Your task to perform on an android device: Open the calendar app, open the side menu, and click the "Day" option Image 0: 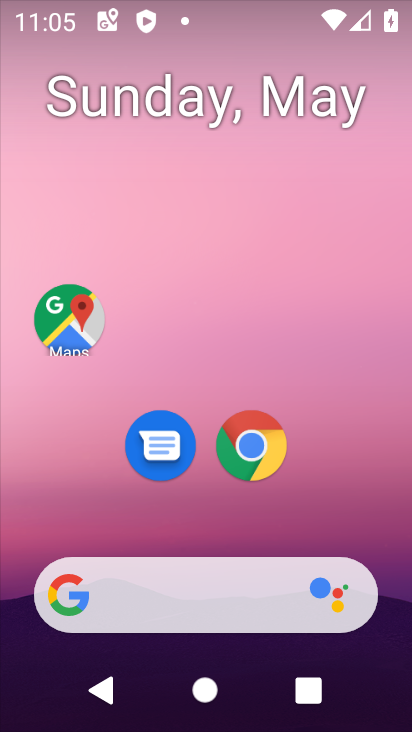
Step 0: drag from (200, 446) to (220, 90)
Your task to perform on an android device: Open the calendar app, open the side menu, and click the "Day" option Image 1: 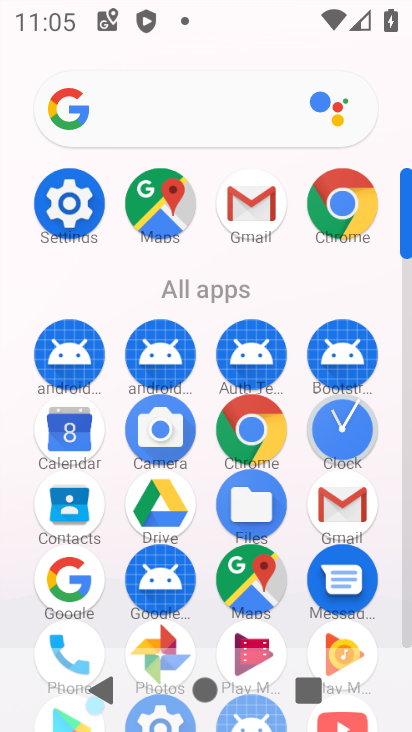
Step 1: click (73, 415)
Your task to perform on an android device: Open the calendar app, open the side menu, and click the "Day" option Image 2: 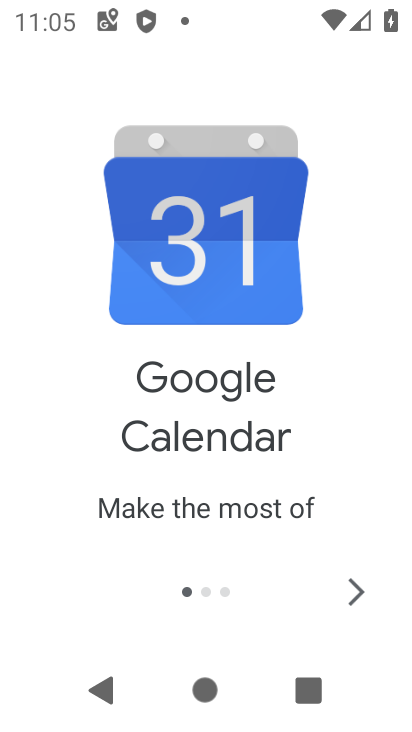
Step 2: click (358, 597)
Your task to perform on an android device: Open the calendar app, open the side menu, and click the "Day" option Image 3: 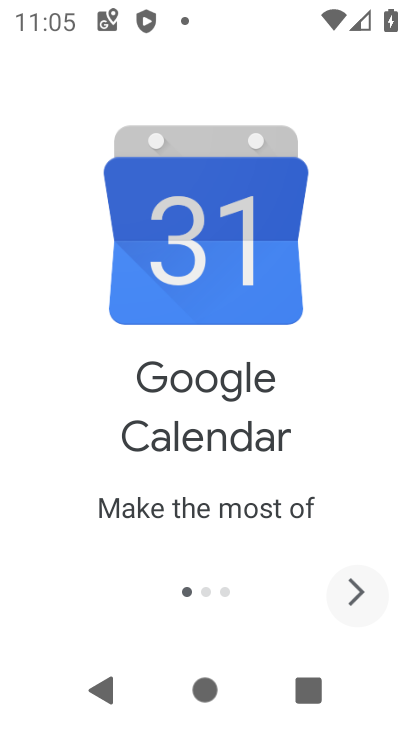
Step 3: click (358, 597)
Your task to perform on an android device: Open the calendar app, open the side menu, and click the "Day" option Image 4: 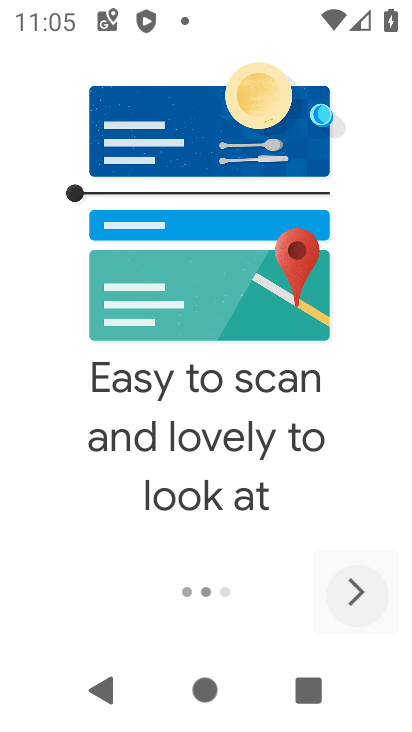
Step 4: click (358, 597)
Your task to perform on an android device: Open the calendar app, open the side menu, and click the "Day" option Image 5: 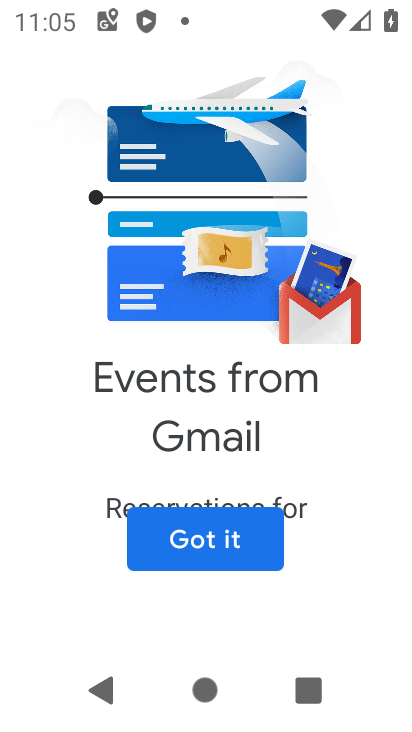
Step 5: click (227, 528)
Your task to perform on an android device: Open the calendar app, open the side menu, and click the "Day" option Image 6: 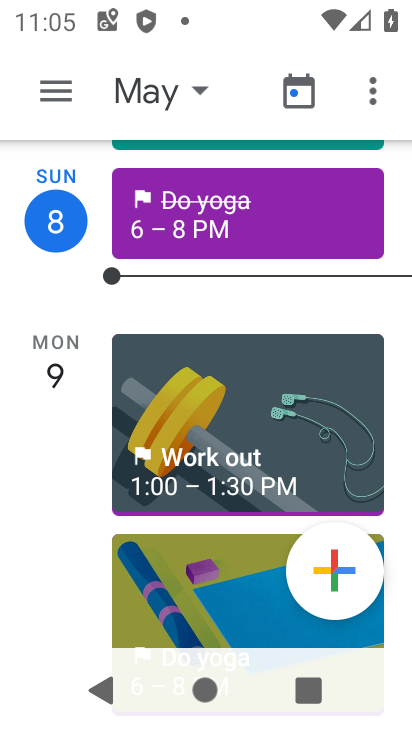
Step 6: click (59, 102)
Your task to perform on an android device: Open the calendar app, open the side menu, and click the "Day" option Image 7: 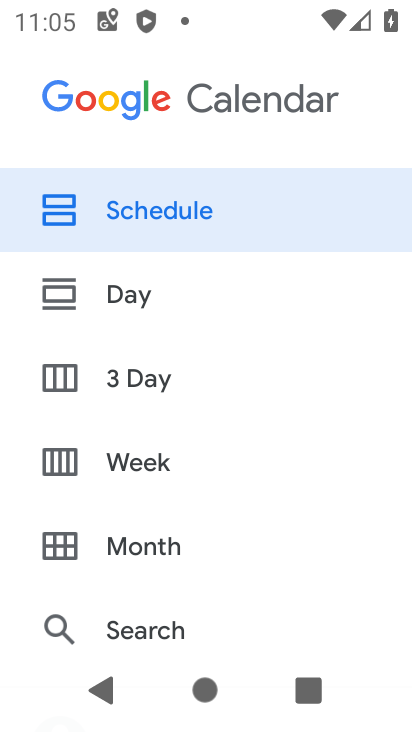
Step 7: click (131, 284)
Your task to perform on an android device: Open the calendar app, open the side menu, and click the "Day" option Image 8: 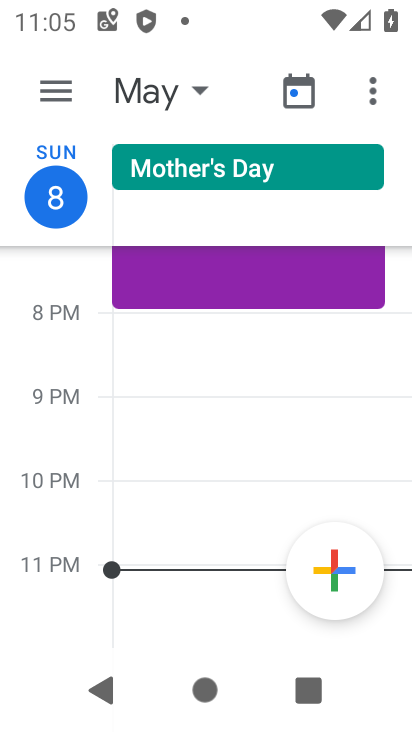
Step 8: task complete